Your task to perform on an android device: Open accessibility settings Image 0: 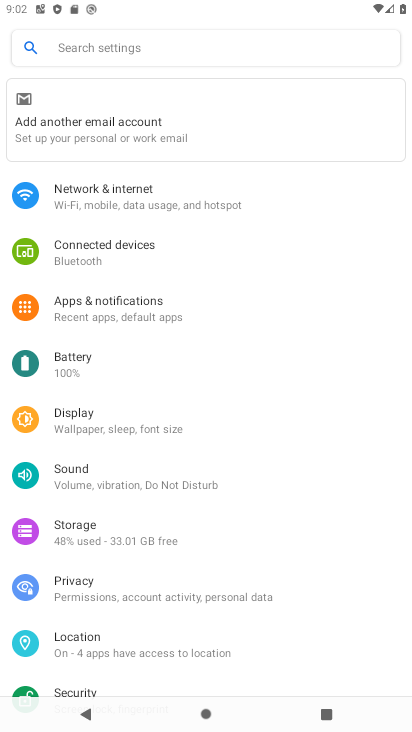
Step 0: drag from (191, 210) to (204, 683)
Your task to perform on an android device: Open accessibility settings Image 1: 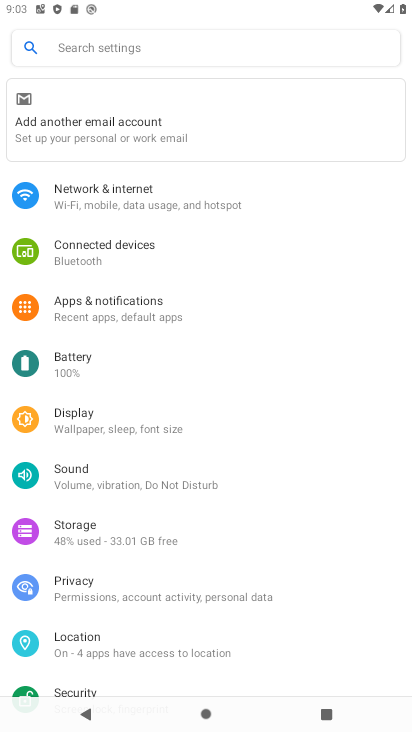
Step 1: drag from (207, 556) to (328, 202)
Your task to perform on an android device: Open accessibility settings Image 2: 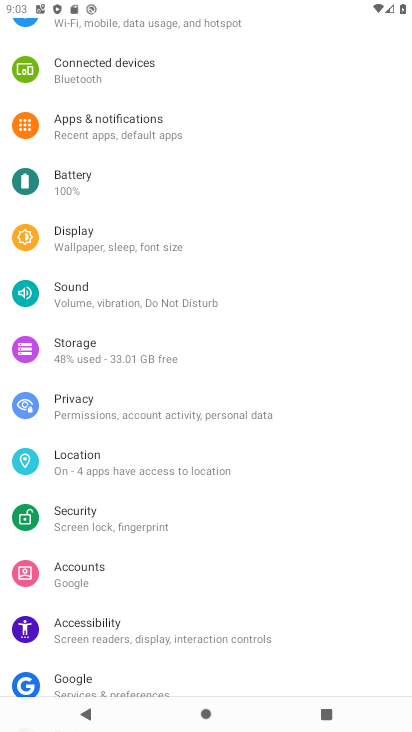
Step 2: click (174, 625)
Your task to perform on an android device: Open accessibility settings Image 3: 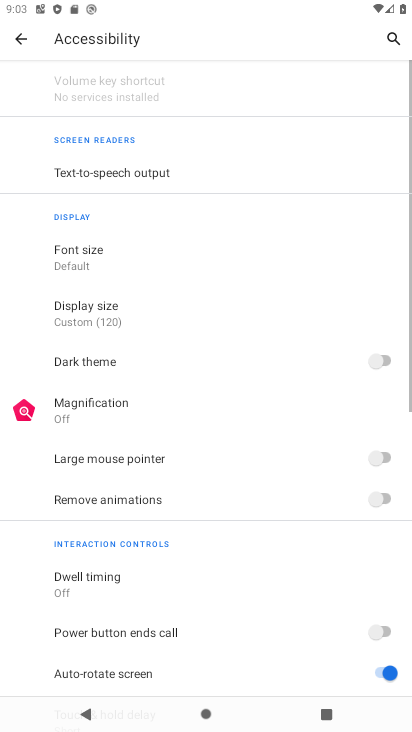
Step 3: task complete